Your task to perform on an android device: Go to wifi settings Image 0: 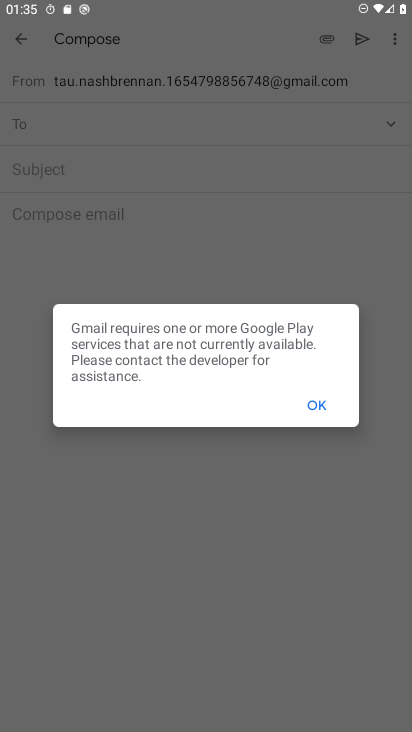
Step 0: press home button
Your task to perform on an android device: Go to wifi settings Image 1: 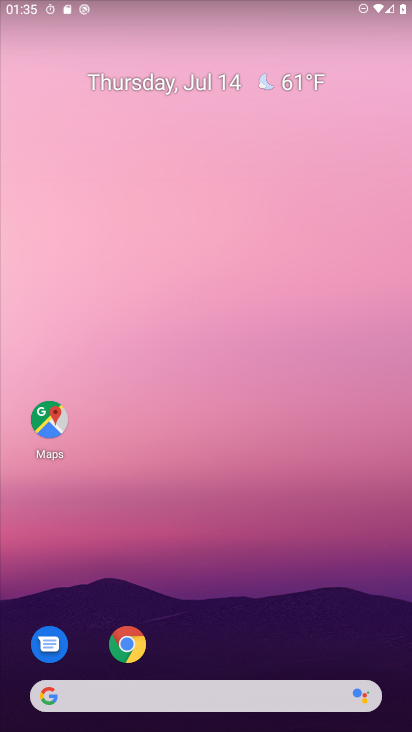
Step 1: drag from (289, 615) to (258, 103)
Your task to perform on an android device: Go to wifi settings Image 2: 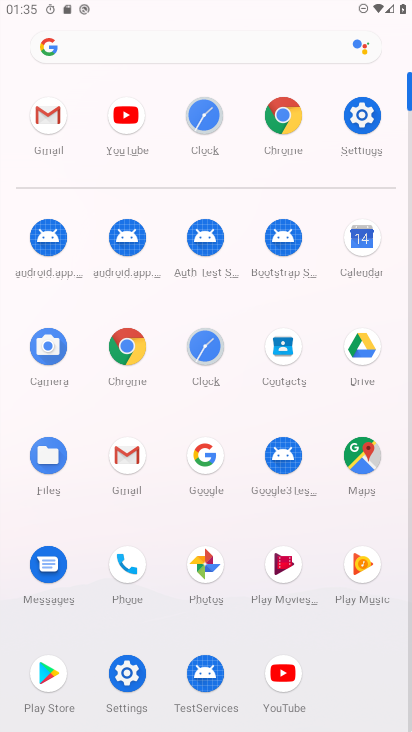
Step 2: click (366, 109)
Your task to perform on an android device: Go to wifi settings Image 3: 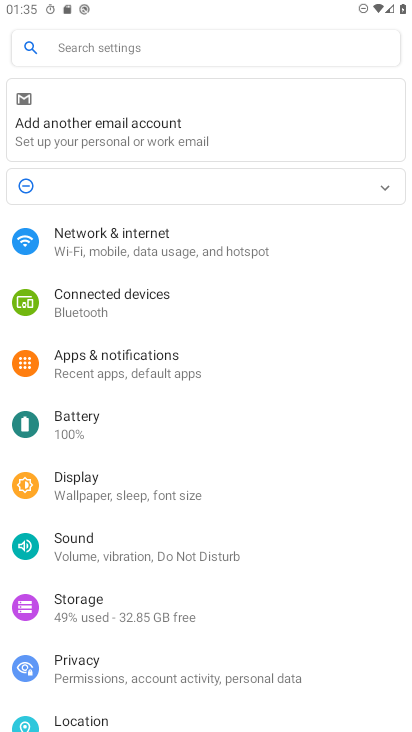
Step 3: click (170, 251)
Your task to perform on an android device: Go to wifi settings Image 4: 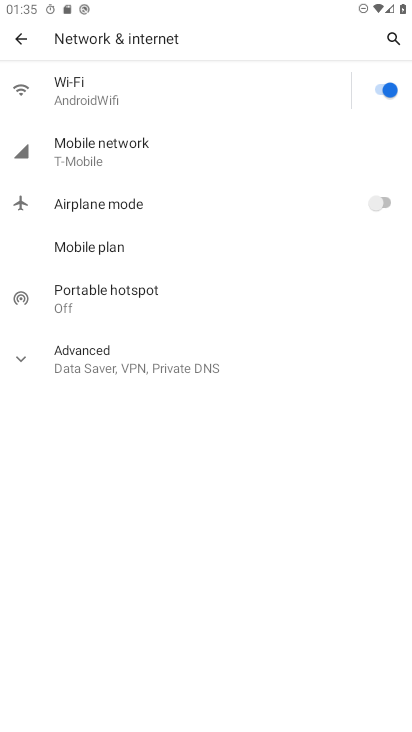
Step 4: click (106, 100)
Your task to perform on an android device: Go to wifi settings Image 5: 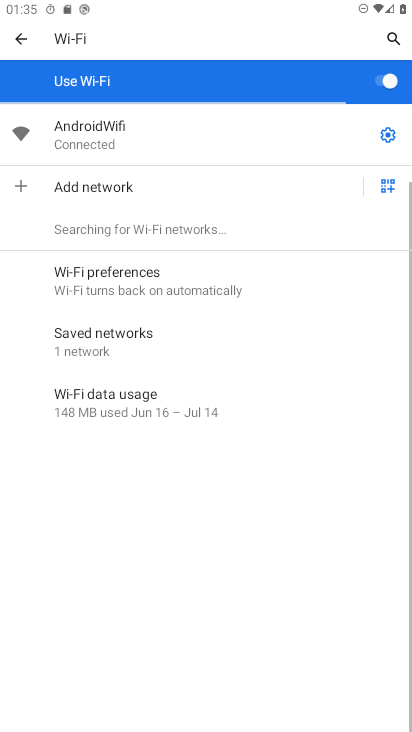
Step 5: click (384, 131)
Your task to perform on an android device: Go to wifi settings Image 6: 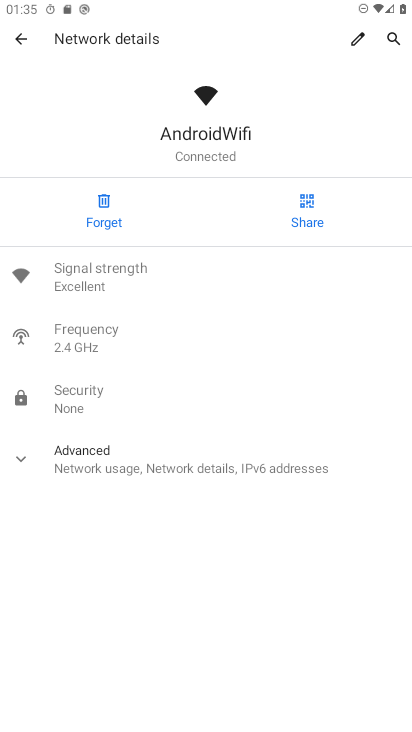
Step 6: task complete